Your task to perform on an android device: Open calendar and show me the second week of next month Image 0: 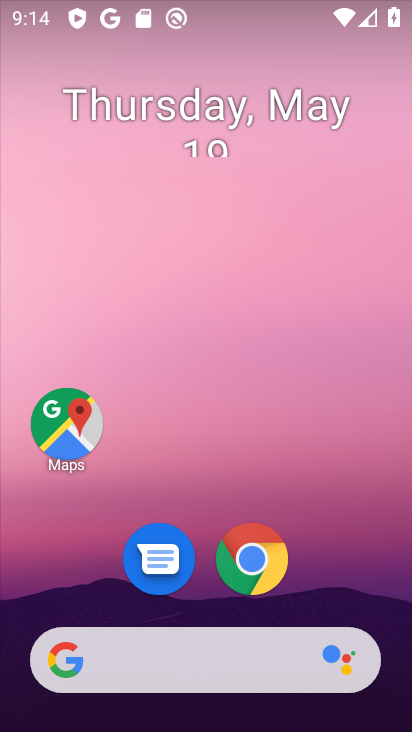
Step 0: drag from (326, 532) to (250, 81)
Your task to perform on an android device: Open calendar and show me the second week of next month Image 1: 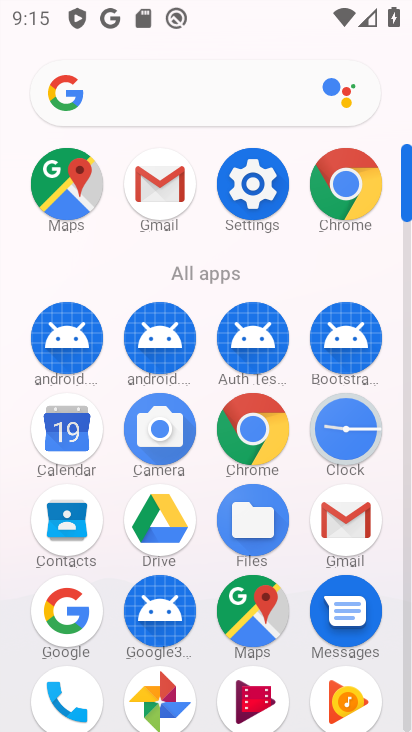
Step 1: click (59, 435)
Your task to perform on an android device: Open calendar and show me the second week of next month Image 2: 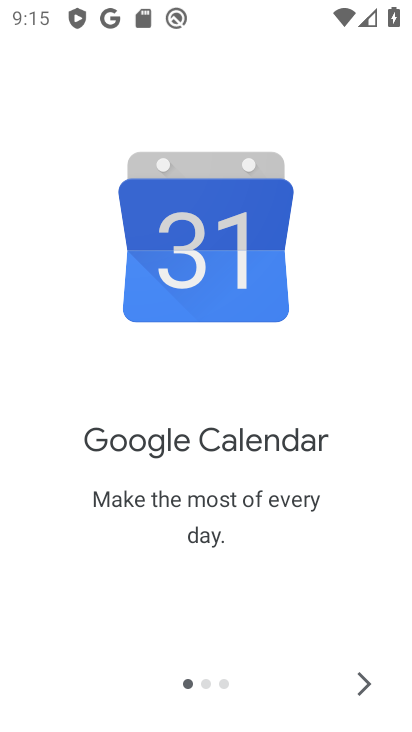
Step 2: click (360, 679)
Your task to perform on an android device: Open calendar and show me the second week of next month Image 3: 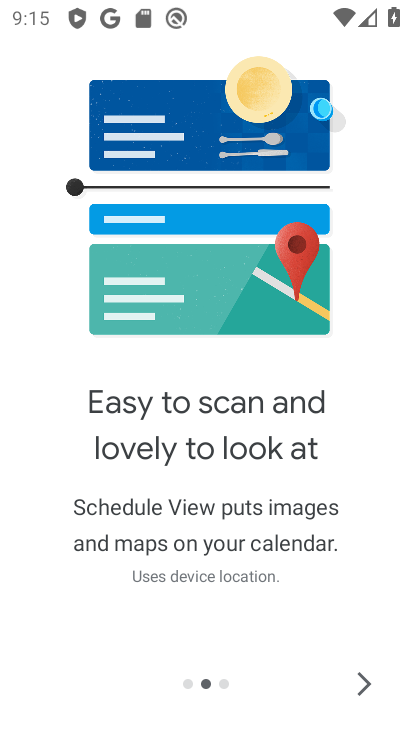
Step 3: click (360, 678)
Your task to perform on an android device: Open calendar and show me the second week of next month Image 4: 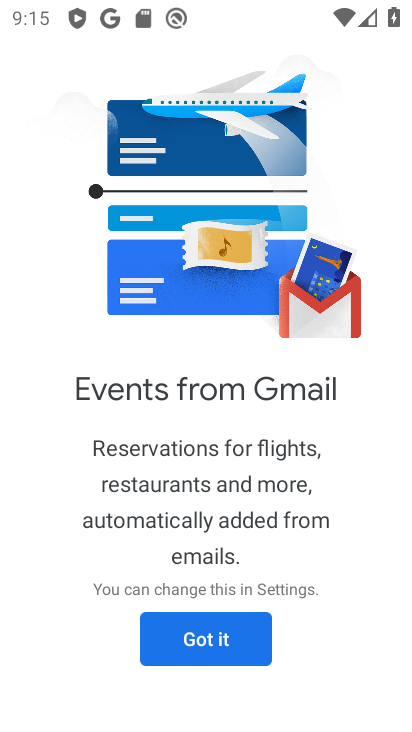
Step 4: click (227, 638)
Your task to perform on an android device: Open calendar and show me the second week of next month Image 5: 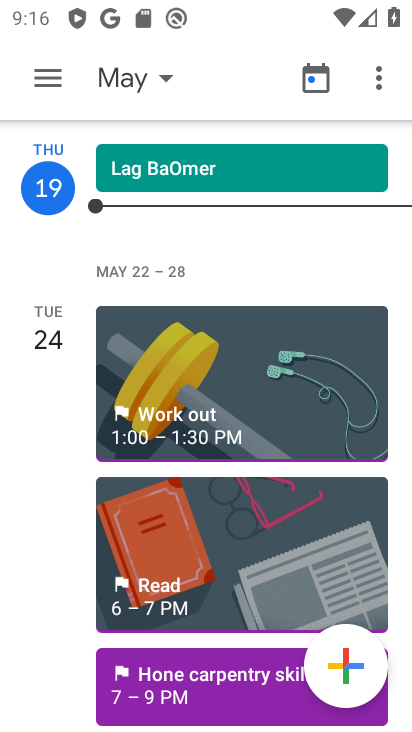
Step 5: click (145, 86)
Your task to perform on an android device: Open calendar and show me the second week of next month Image 6: 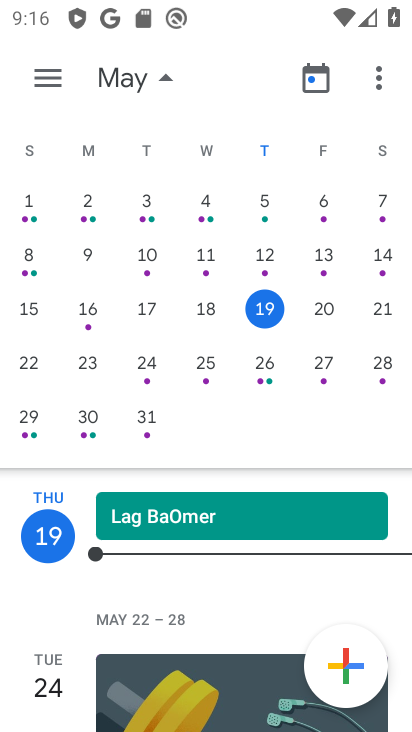
Step 6: drag from (375, 308) to (51, 325)
Your task to perform on an android device: Open calendar and show me the second week of next month Image 7: 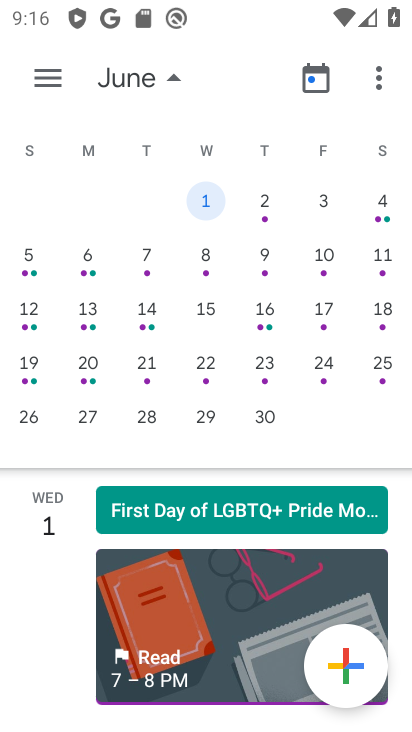
Step 7: click (29, 307)
Your task to perform on an android device: Open calendar and show me the second week of next month Image 8: 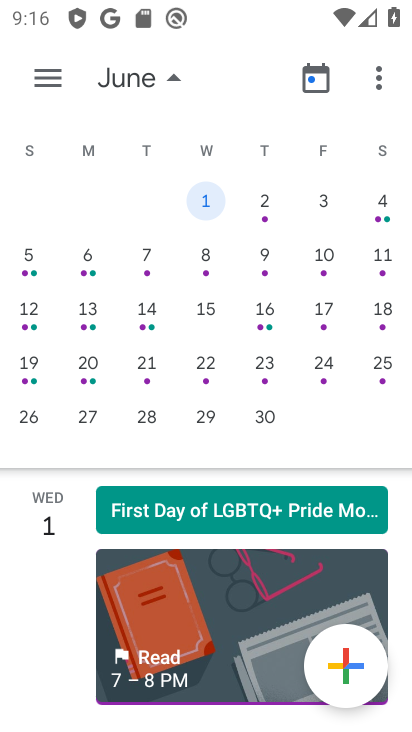
Step 8: click (33, 313)
Your task to perform on an android device: Open calendar and show me the second week of next month Image 9: 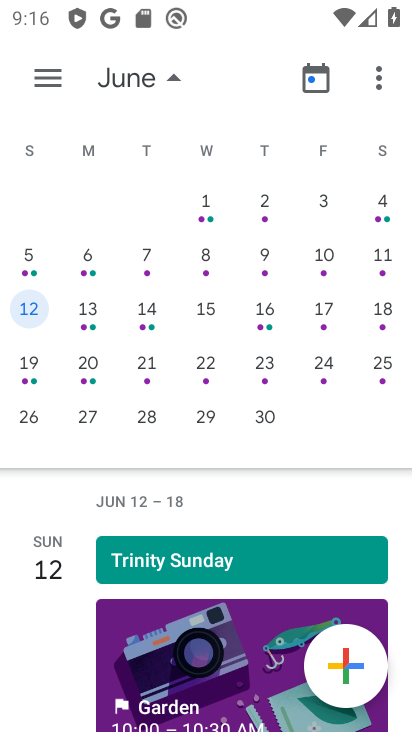
Step 9: click (29, 73)
Your task to perform on an android device: Open calendar and show me the second week of next month Image 10: 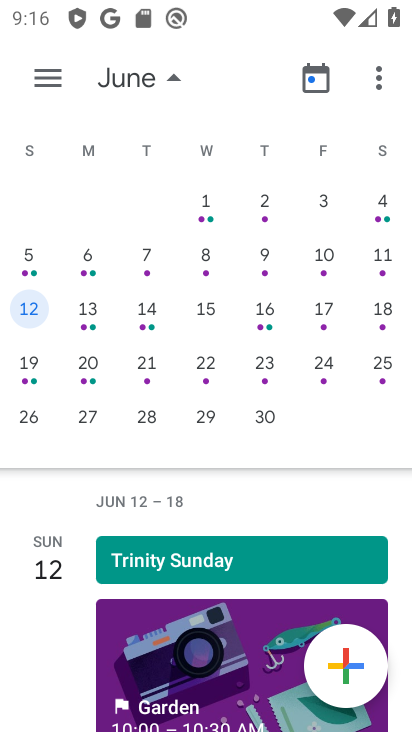
Step 10: click (51, 85)
Your task to perform on an android device: Open calendar and show me the second week of next month Image 11: 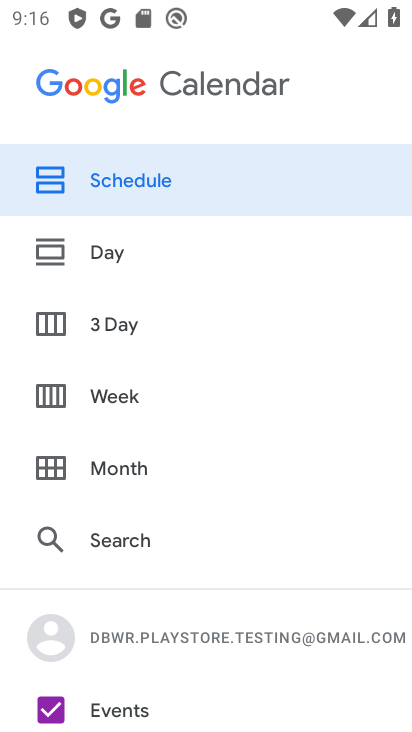
Step 11: click (112, 411)
Your task to perform on an android device: Open calendar and show me the second week of next month Image 12: 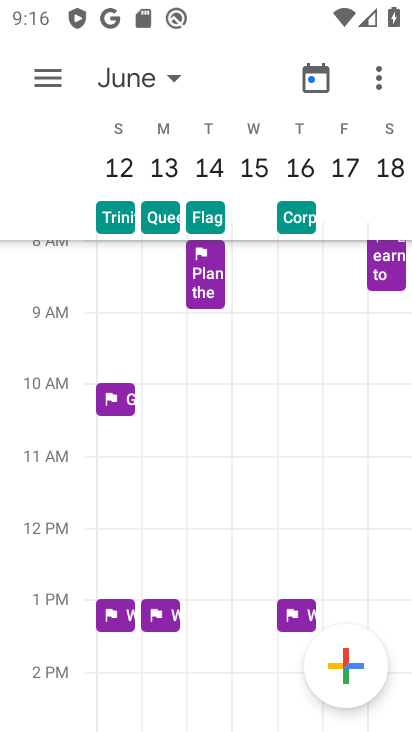
Step 12: task complete